Your task to perform on an android device: change keyboard looks Image 0: 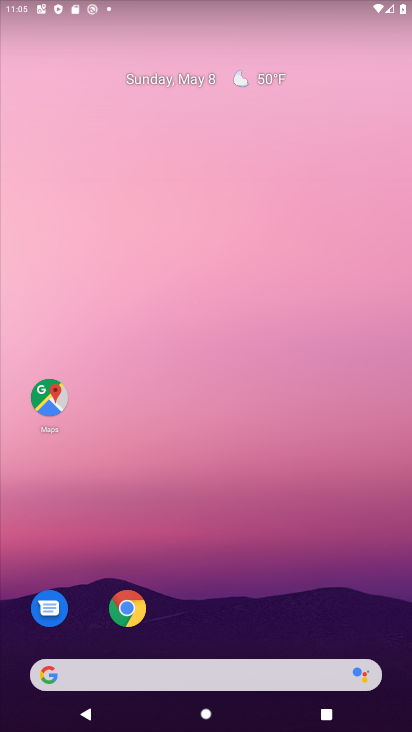
Step 0: drag from (300, 573) to (368, 4)
Your task to perform on an android device: change keyboard looks Image 1: 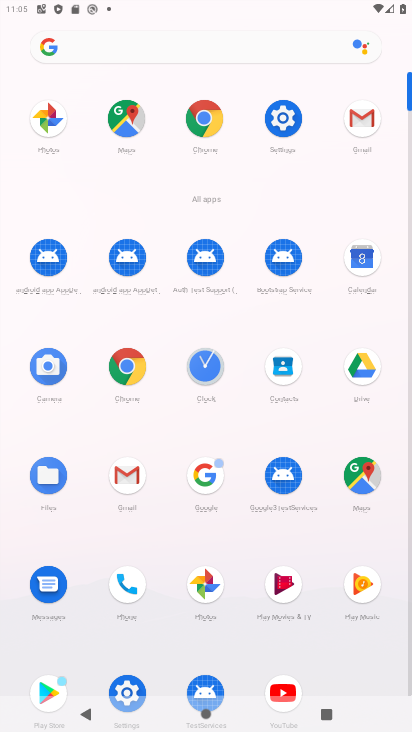
Step 1: click (285, 114)
Your task to perform on an android device: change keyboard looks Image 2: 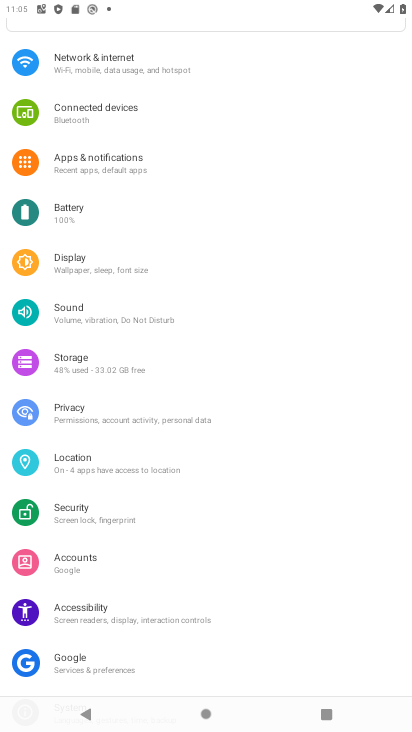
Step 2: drag from (156, 599) to (199, 92)
Your task to perform on an android device: change keyboard looks Image 3: 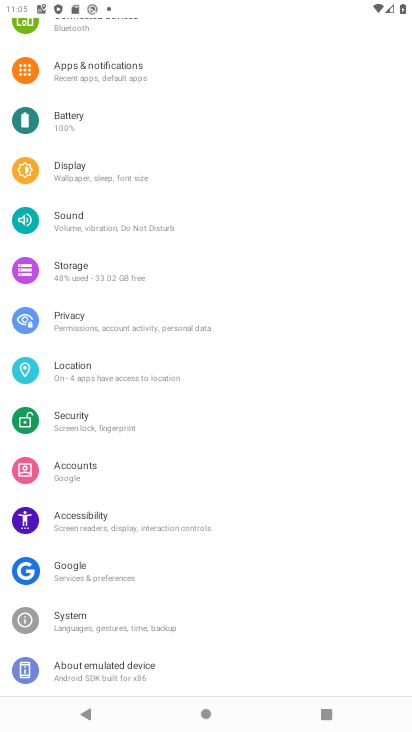
Step 3: click (137, 624)
Your task to perform on an android device: change keyboard looks Image 4: 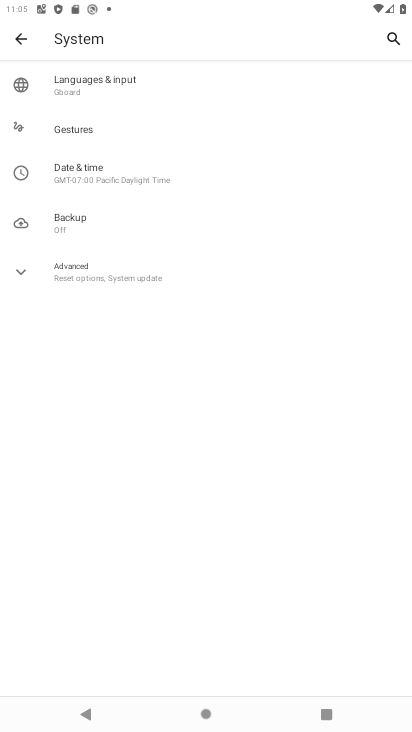
Step 4: click (64, 91)
Your task to perform on an android device: change keyboard looks Image 5: 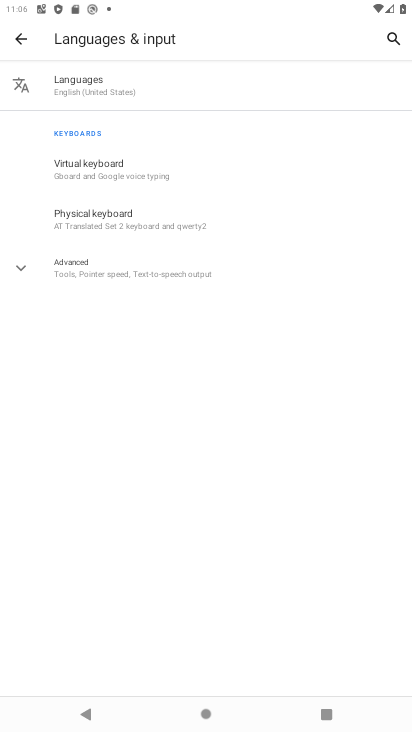
Step 5: click (100, 94)
Your task to perform on an android device: change keyboard looks Image 6: 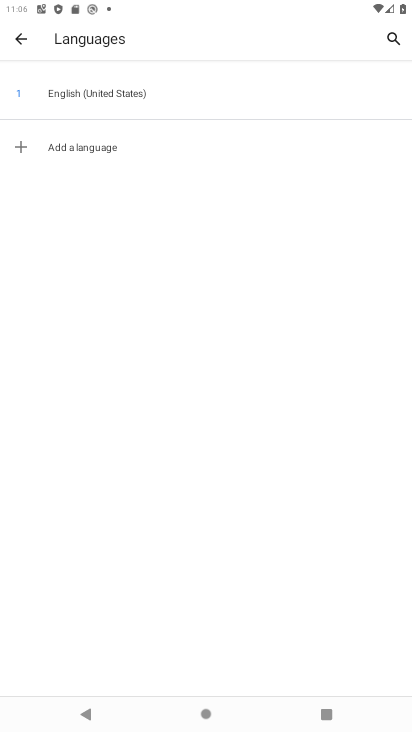
Step 6: click (15, 35)
Your task to perform on an android device: change keyboard looks Image 7: 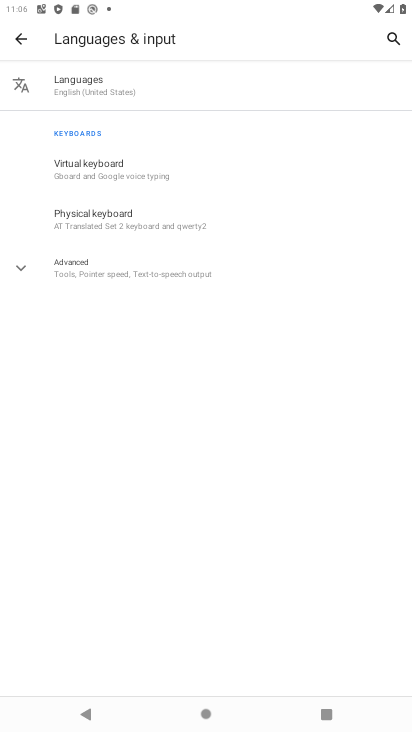
Step 7: click (81, 170)
Your task to perform on an android device: change keyboard looks Image 8: 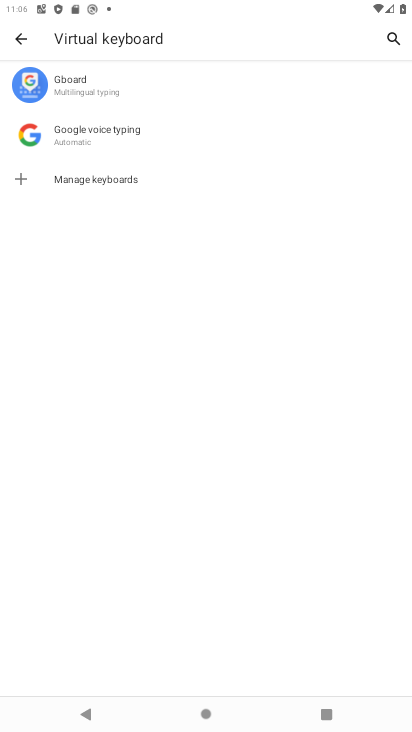
Step 8: click (70, 97)
Your task to perform on an android device: change keyboard looks Image 9: 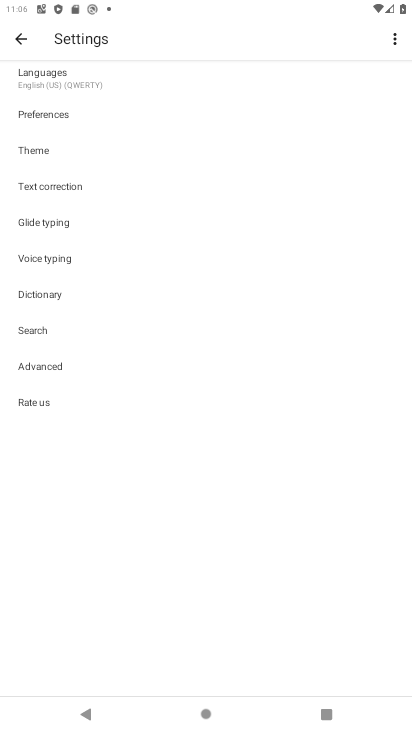
Step 9: click (46, 144)
Your task to perform on an android device: change keyboard looks Image 10: 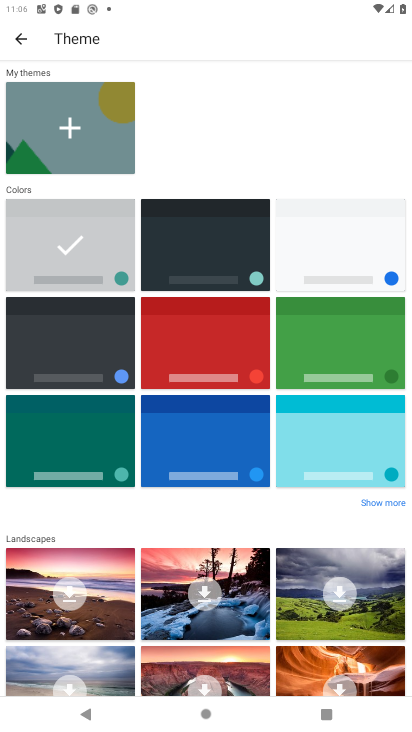
Step 10: click (188, 264)
Your task to perform on an android device: change keyboard looks Image 11: 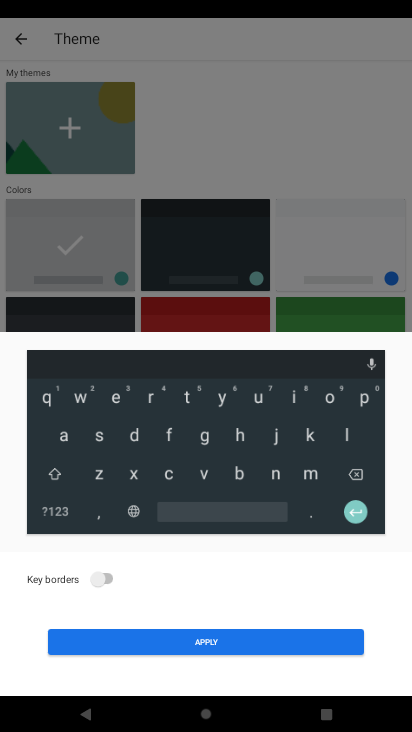
Step 11: click (203, 642)
Your task to perform on an android device: change keyboard looks Image 12: 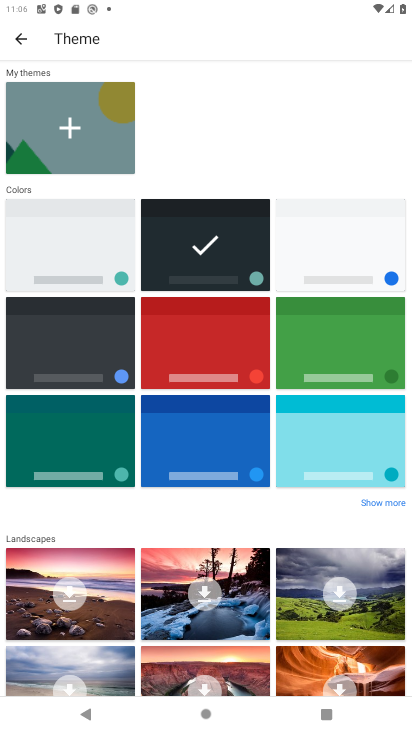
Step 12: task complete